Your task to perform on an android device: turn on data saver in the chrome app Image 0: 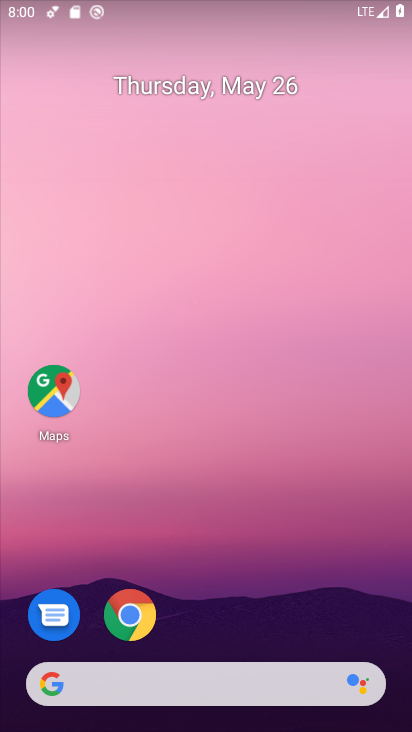
Step 0: drag from (226, 636) to (220, 226)
Your task to perform on an android device: turn on data saver in the chrome app Image 1: 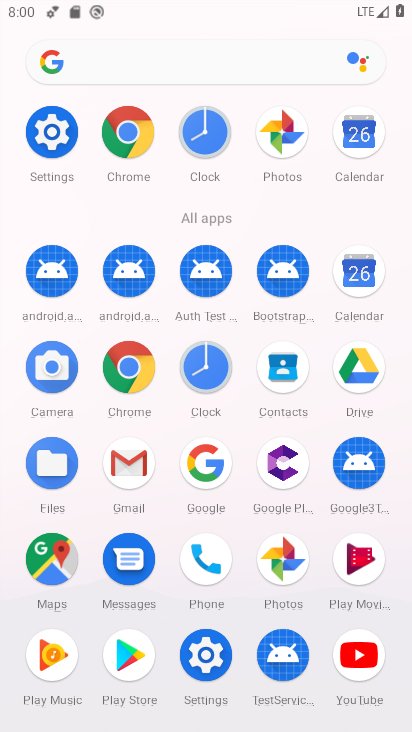
Step 1: click (131, 124)
Your task to perform on an android device: turn on data saver in the chrome app Image 2: 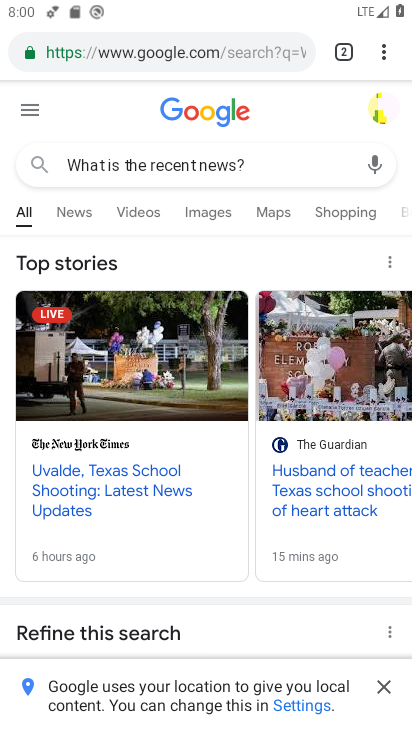
Step 2: click (380, 52)
Your task to perform on an android device: turn on data saver in the chrome app Image 3: 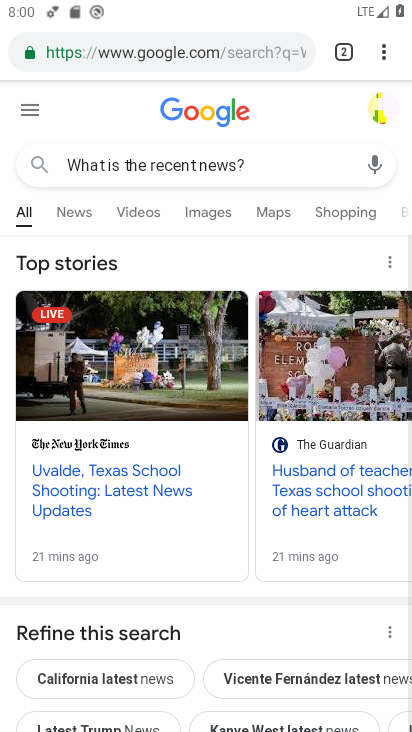
Step 3: click (388, 42)
Your task to perform on an android device: turn on data saver in the chrome app Image 4: 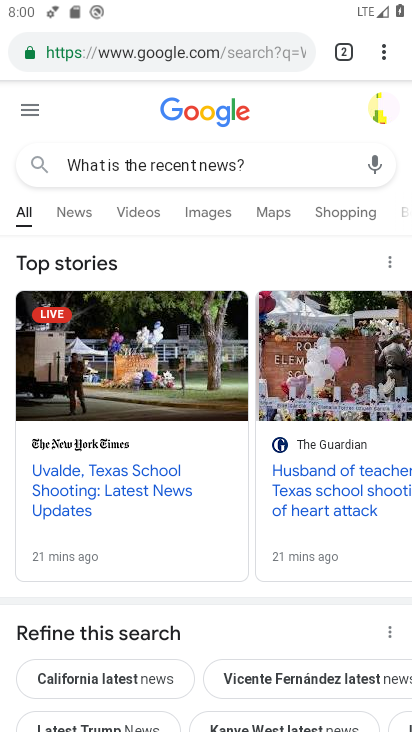
Step 4: click (379, 53)
Your task to perform on an android device: turn on data saver in the chrome app Image 5: 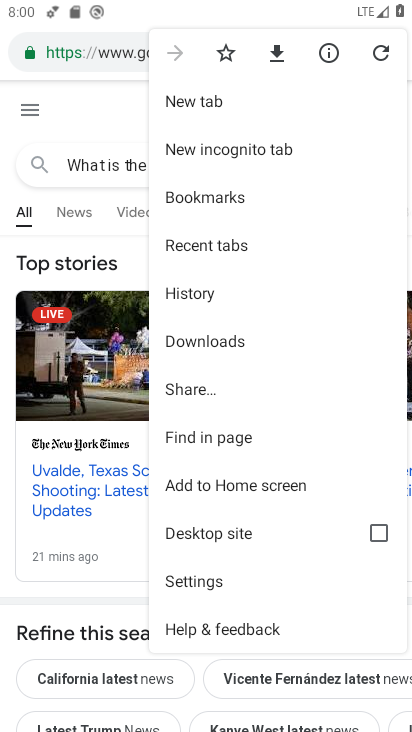
Step 5: click (208, 591)
Your task to perform on an android device: turn on data saver in the chrome app Image 6: 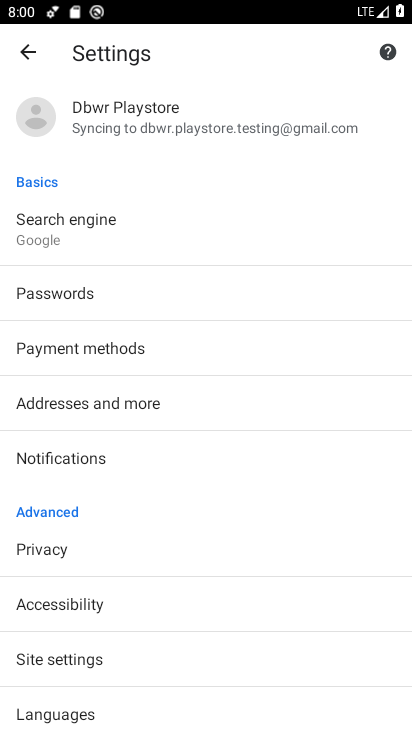
Step 6: drag from (180, 696) to (247, 384)
Your task to perform on an android device: turn on data saver in the chrome app Image 7: 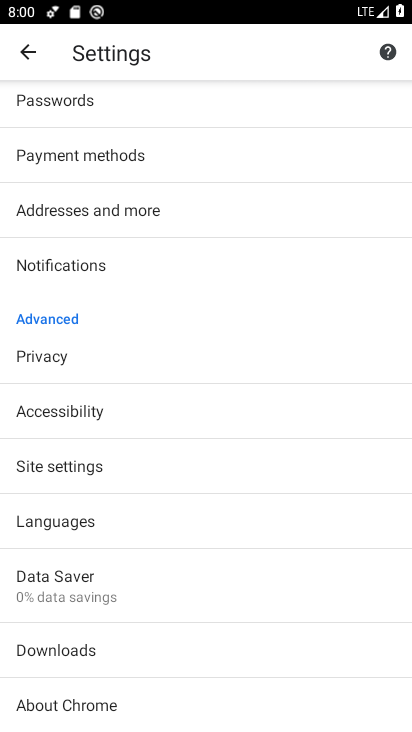
Step 7: click (91, 593)
Your task to perform on an android device: turn on data saver in the chrome app Image 8: 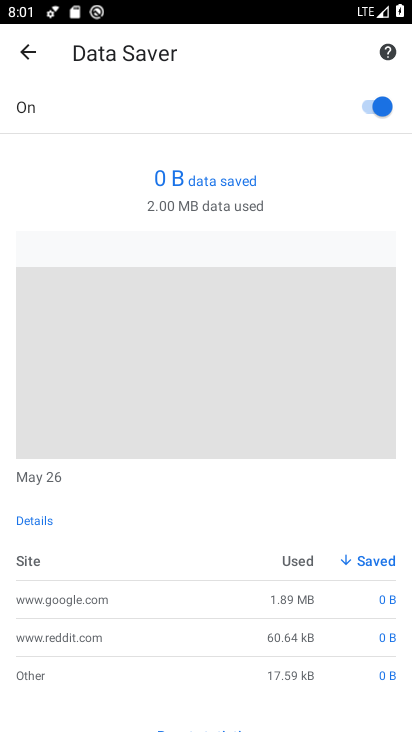
Step 8: task complete